Your task to perform on an android device: Open internet settings Image 0: 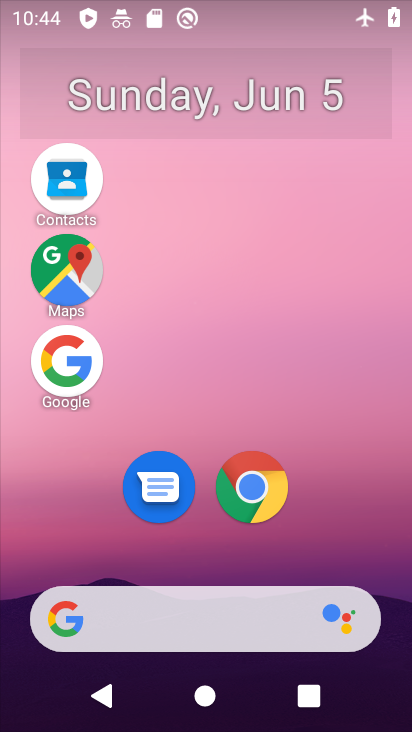
Step 0: drag from (239, 627) to (225, 122)
Your task to perform on an android device: Open internet settings Image 1: 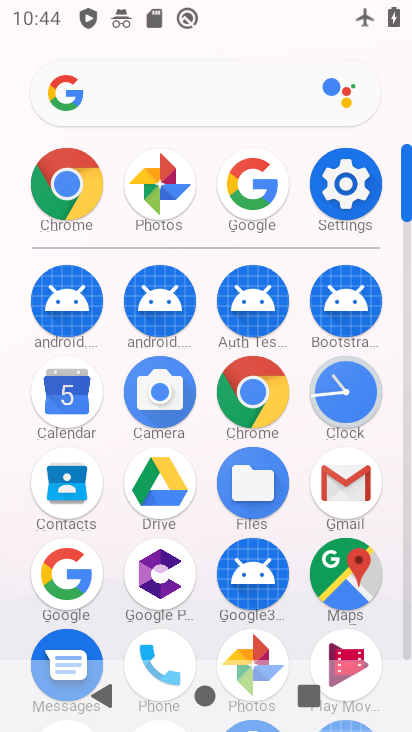
Step 1: click (362, 195)
Your task to perform on an android device: Open internet settings Image 2: 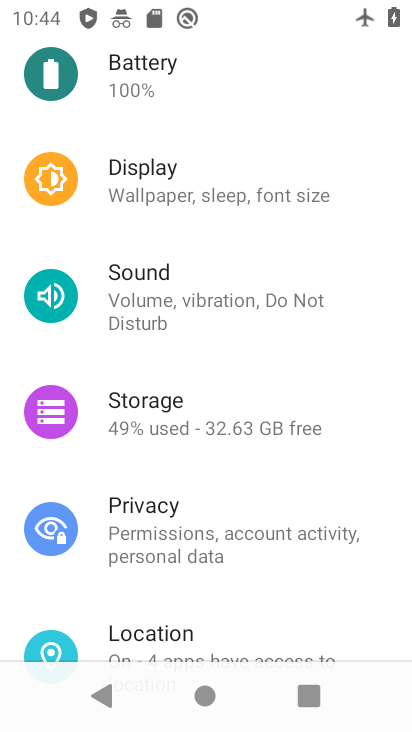
Step 2: drag from (205, 250) to (209, 665)
Your task to perform on an android device: Open internet settings Image 3: 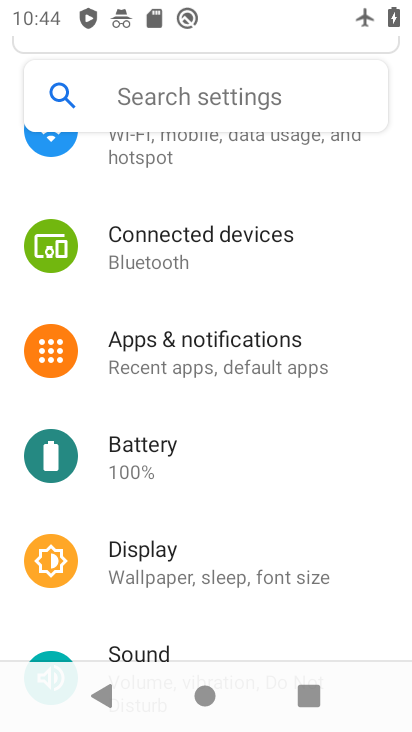
Step 3: drag from (171, 387) to (207, 673)
Your task to perform on an android device: Open internet settings Image 4: 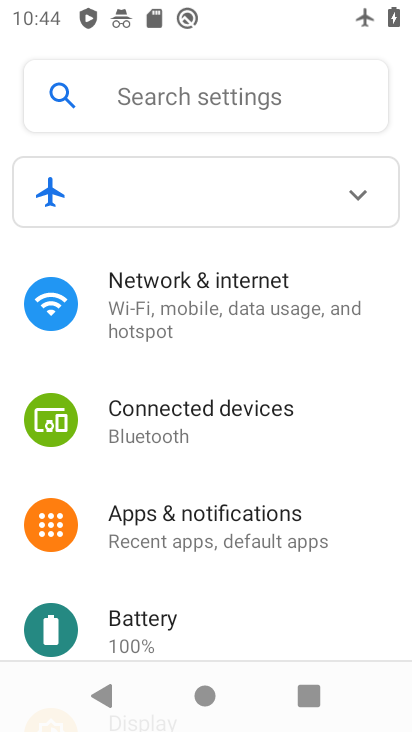
Step 4: drag from (197, 390) to (204, 613)
Your task to perform on an android device: Open internet settings Image 5: 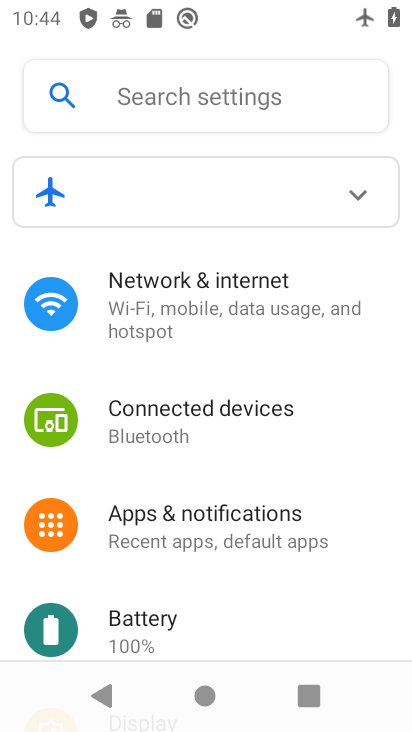
Step 5: click (247, 316)
Your task to perform on an android device: Open internet settings Image 6: 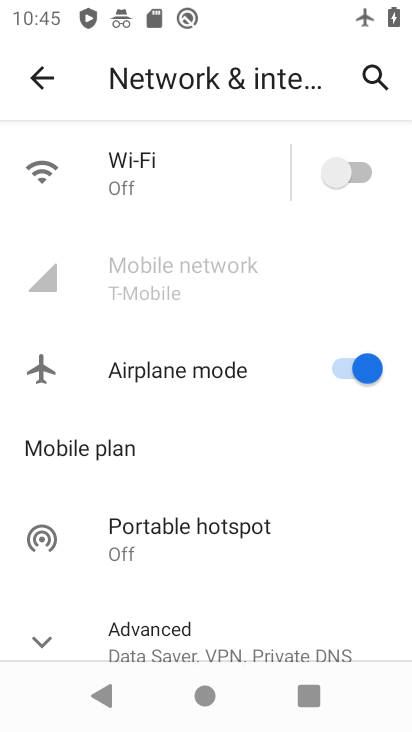
Step 6: click (236, 289)
Your task to perform on an android device: Open internet settings Image 7: 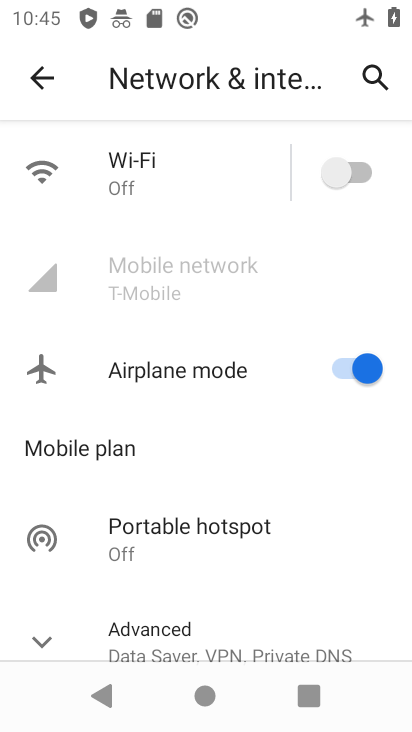
Step 7: task complete